Your task to perform on an android device: turn off airplane mode Image 0: 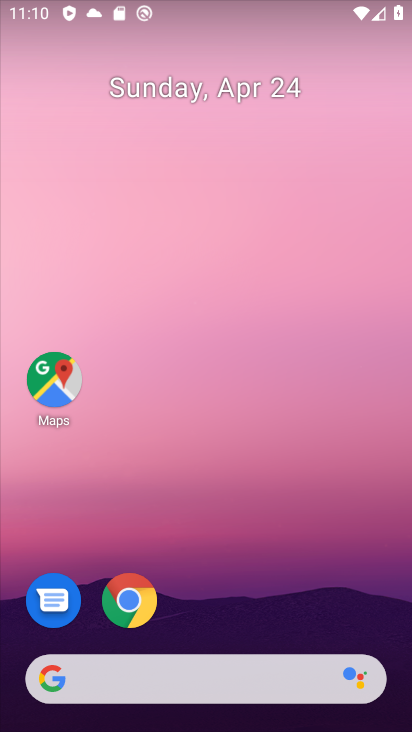
Step 0: drag from (250, 556) to (228, 5)
Your task to perform on an android device: turn off airplane mode Image 1: 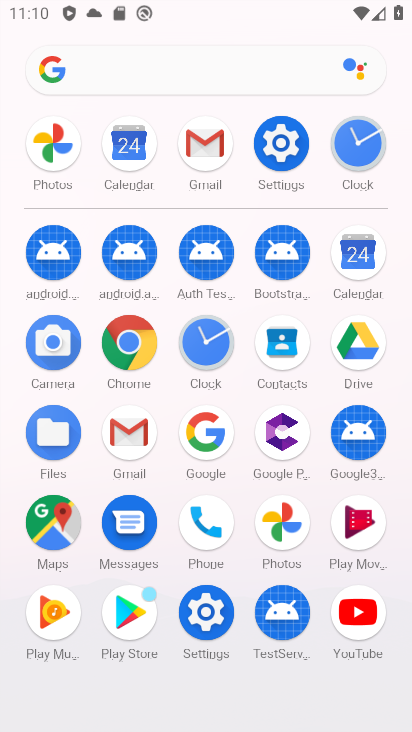
Step 1: click (277, 140)
Your task to perform on an android device: turn off airplane mode Image 2: 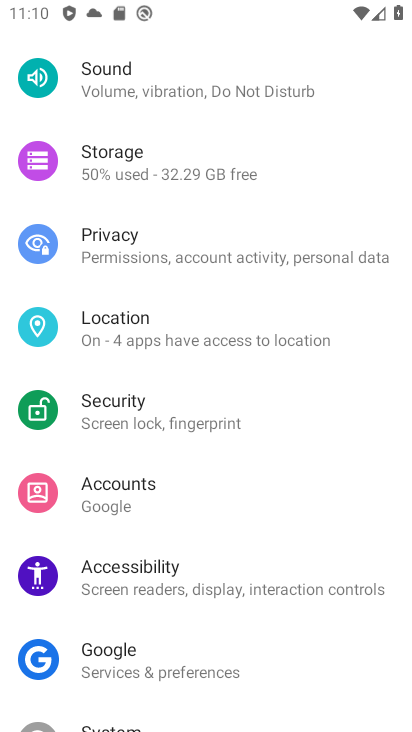
Step 2: drag from (222, 126) to (351, 647)
Your task to perform on an android device: turn off airplane mode Image 3: 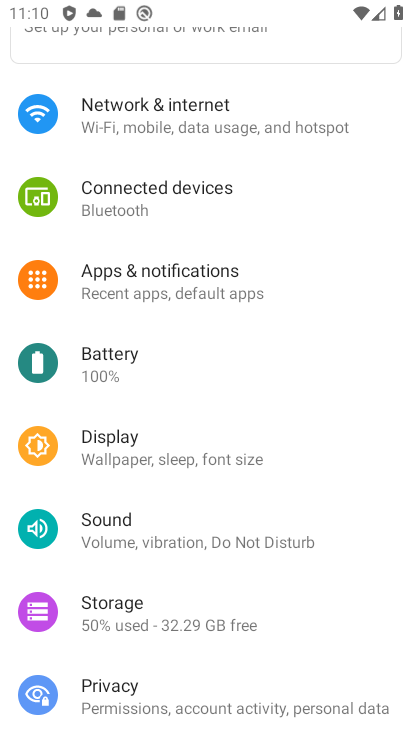
Step 3: click (155, 108)
Your task to perform on an android device: turn off airplane mode Image 4: 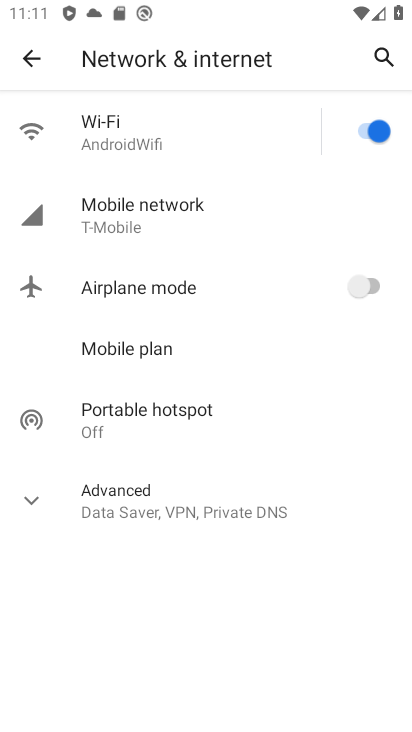
Step 4: task complete